Your task to perform on an android device: Go to notification settings Image 0: 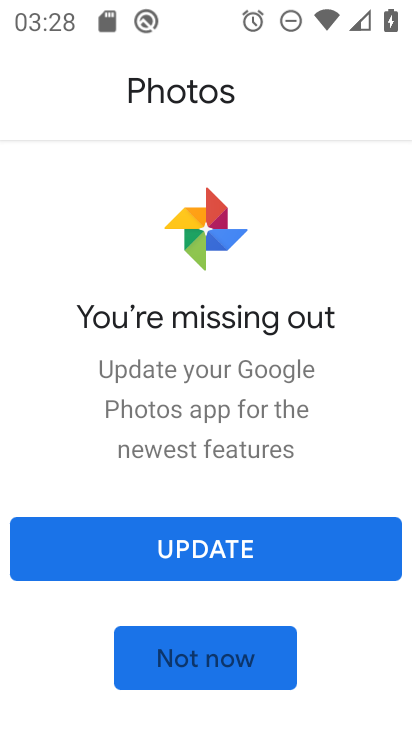
Step 0: press home button
Your task to perform on an android device: Go to notification settings Image 1: 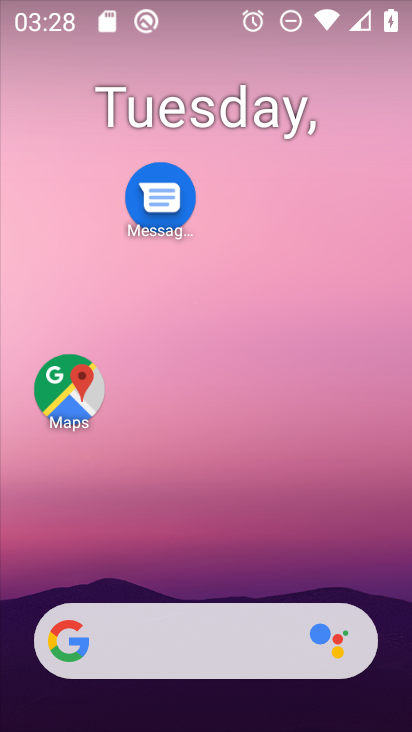
Step 1: drag from (213, 543) to (279, 160)
Your task to perform on an android device: Go to notification settings Image 2: 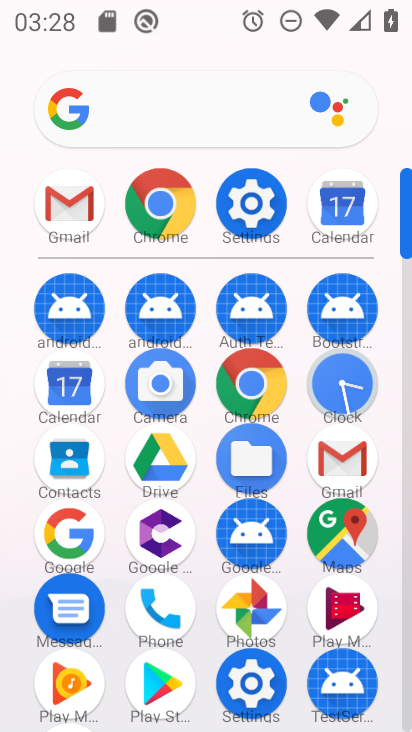
Step 2: click (226, 183)
Your task to perform on an android device: Go to notification settings Image 3: 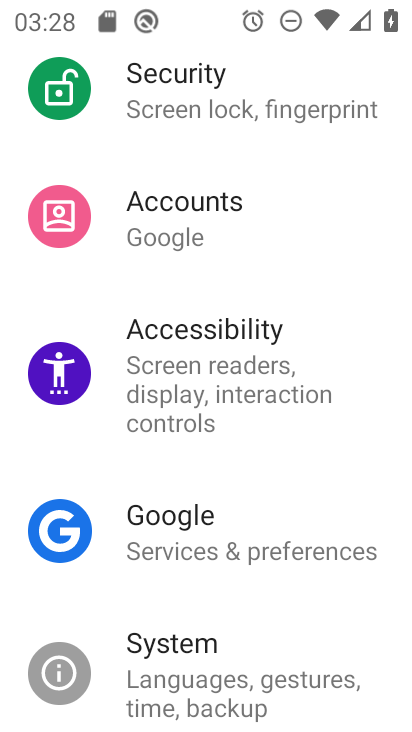
Step 3: drag from (230, 211) to (202, 555)
Your task to perform on an android device: Go to notification settings Image 4: 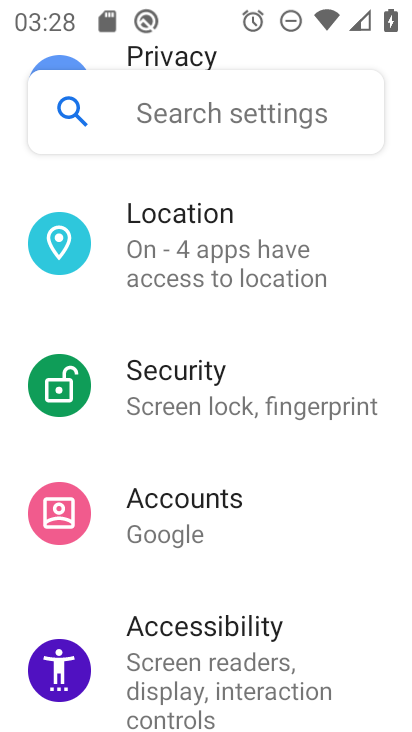
Step 4: drag from (255, 221) to (275, 495)
Your task to perform on an android device: Go to notification settings Image 5: 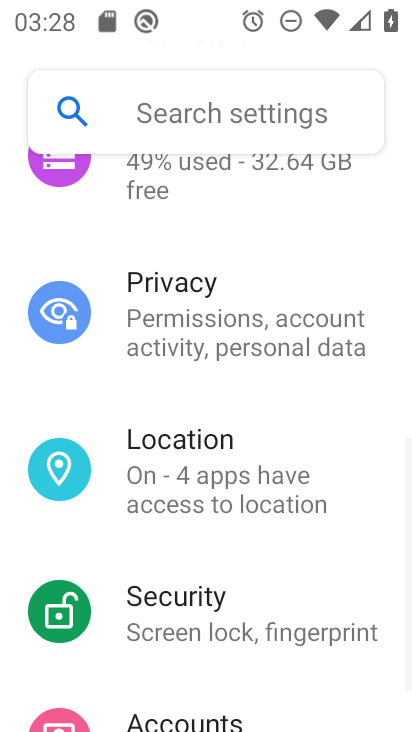
Step 5: drag from (261, 267) to (265, 588)
Your task to perform on an android device: Go to notification settings Image 6: 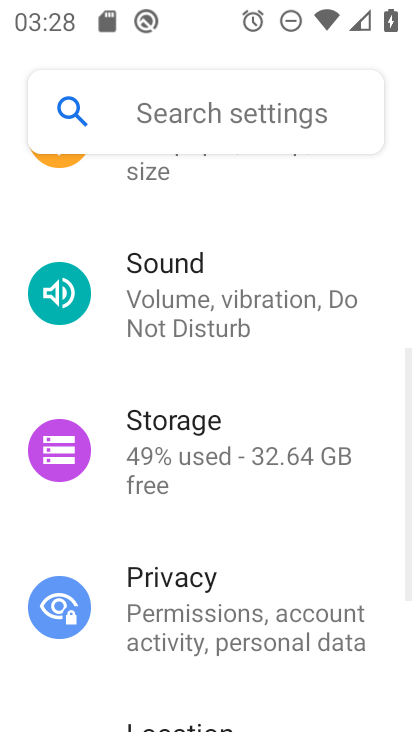
Step 6: drag from (295, 255) to (321, 571)
Your task to perform on an android device: Go to notification settings Image 7: 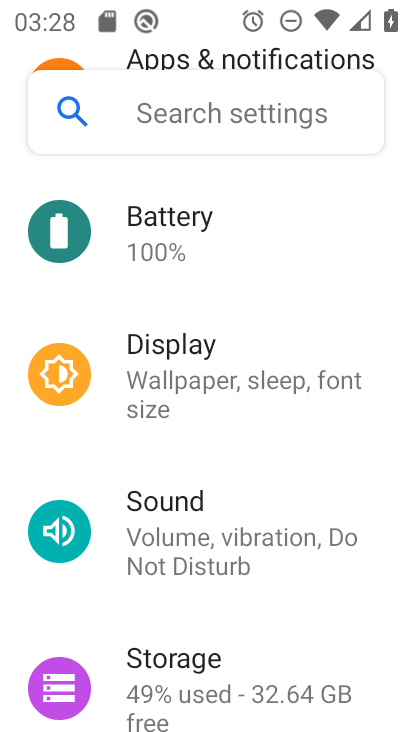
Step 7: drag from (262, 184) to (261, 516)
Your task to perform on an android device: Go to notification settings Image 8: 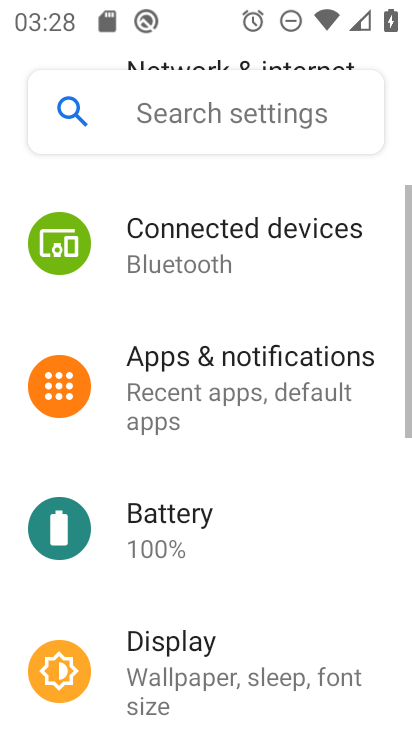
Step 8: click (224, 366)
Your task to perform on an android device: Go to notification settings Image 9: 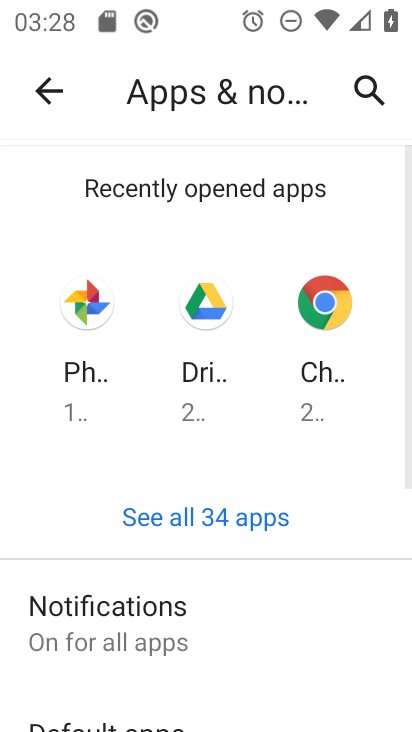
Step 9: drag from (212, 633) to (300, 338)
Your task to perform on an android device: Go to notification settings Image 10: 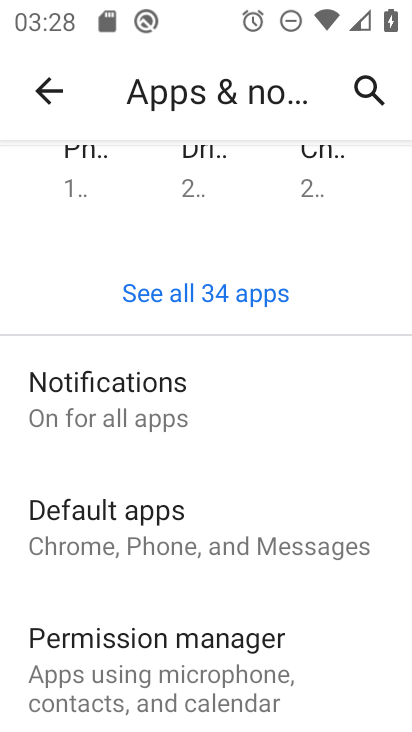
Step 10: click (219, 390)
Your task to perform on an android device: Go to notification settings Image 11: 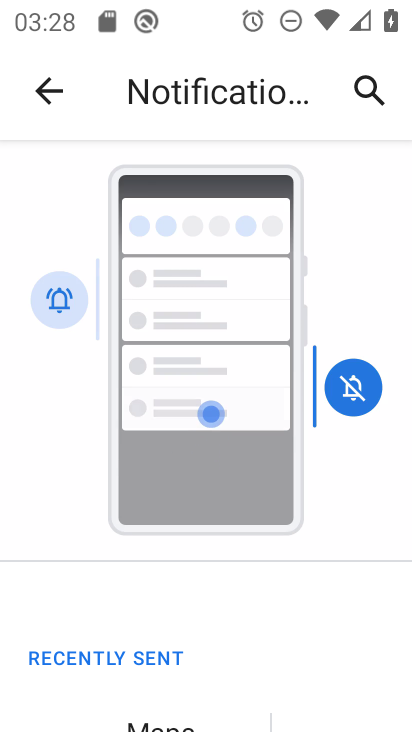
Step 11: task complete